Your task to perform on an android device: Open Chrome and go to the settings page Image 0: 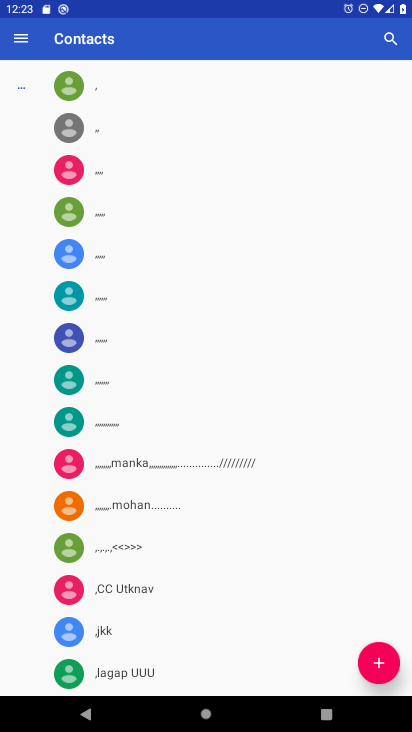
Step 0: press home button
Your task to perform on an android device: Open Chrome and go to the settings page Image 1: 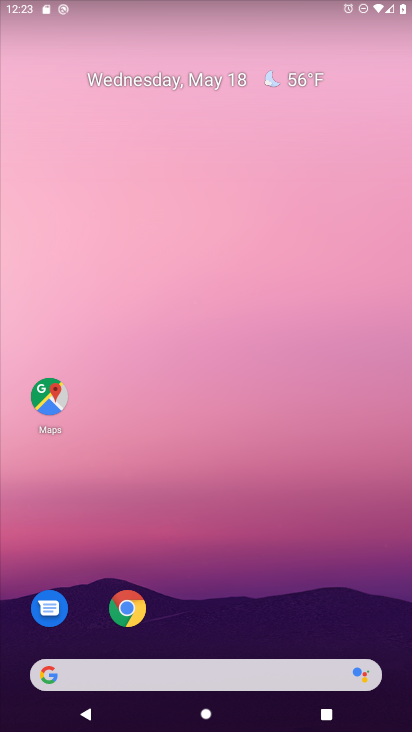
Step 1: drag from (249, 664) to (252, 126)
Your task to perform on an android device: Open Chrome and go to the settings page Image 2: 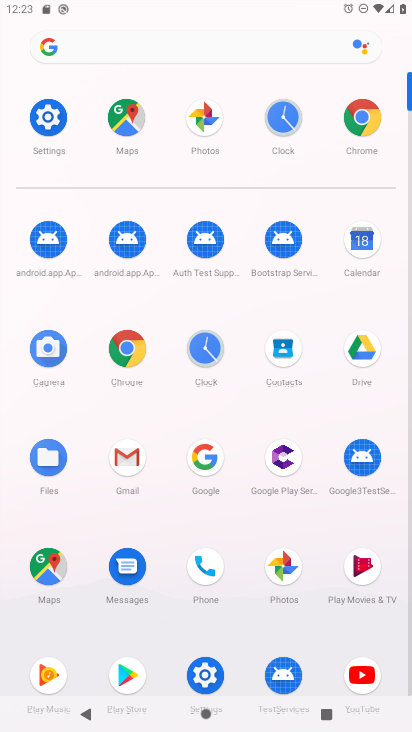
Step 2: click (373, 112)
Your task to perform on an android device: Open Chrome and go to the settings page Image 3: 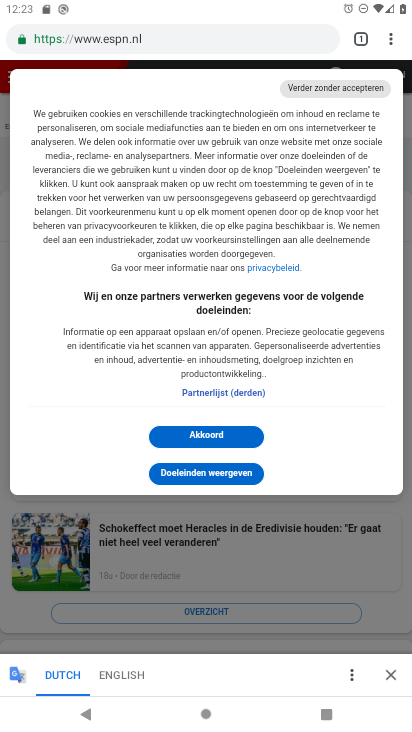
Step 3: click (197, 445)
Your task to perform on an android device: Open Chrome and go to the settings page Image 4: 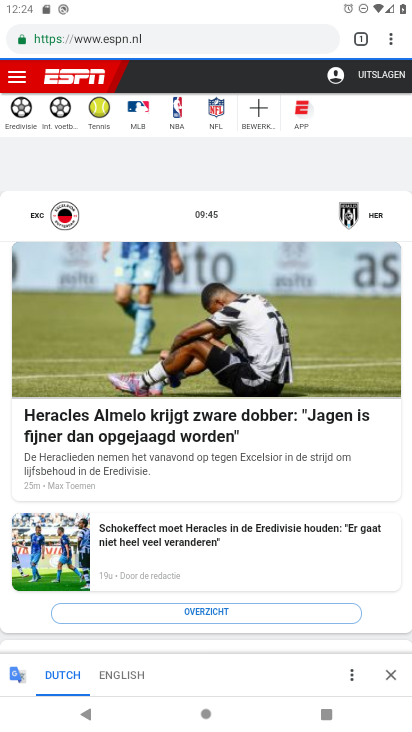
Step 4: click (391, 46)
Your task to perform on an android device: Open Chrome and go to the settings page Image 5: 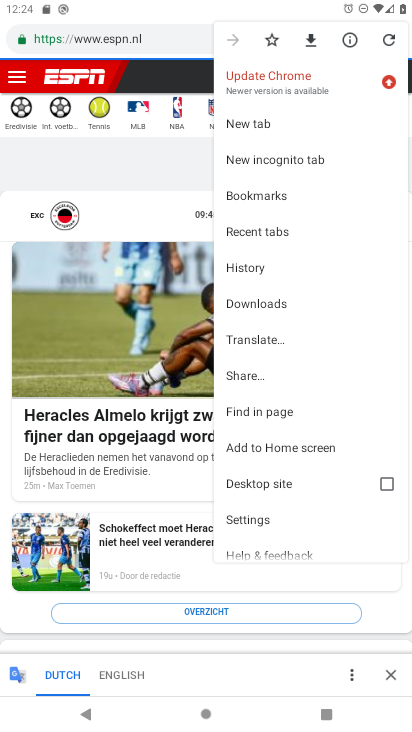
Step 5: click (238, 516)
Your task to perform on an android device: Open Chrome and go to the settings page Image 6: 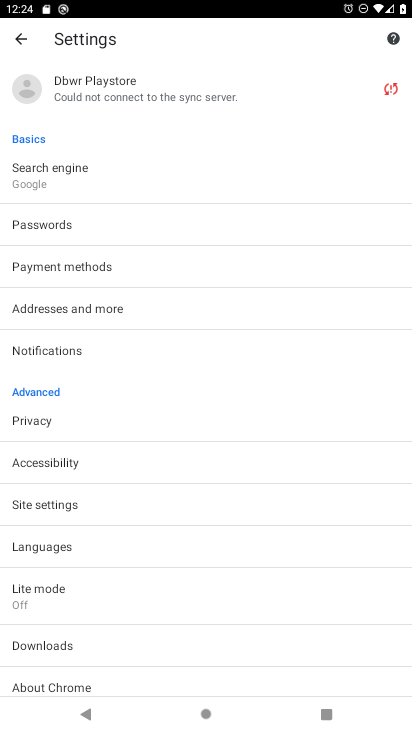
Step 6: task complete